Your task to perform on an android device: Open Wikipedia Image 0: 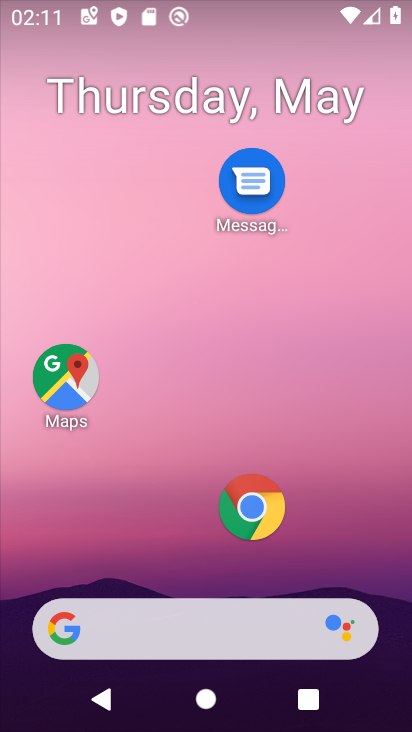
Step 0: drag from (300, 651) to (324, 13)
Your task to perform on an android device: Open Wikipedia Image 1: 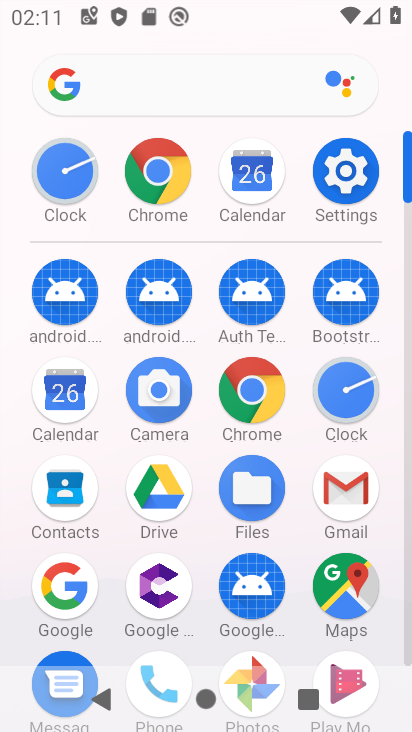
Step 1: click (259, 409)
Your task to perform on an android device: Open Wikipedia Image 2: 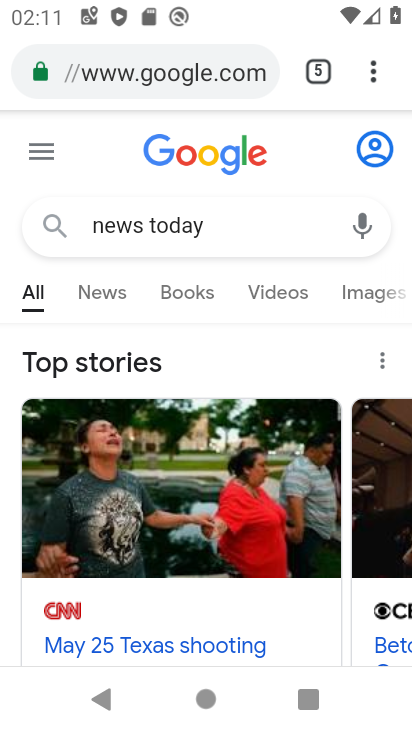
Step 2: drag from (375, 67) to (203, 134)
Your task to perform on an android device: Open Wikipedia Image 3: 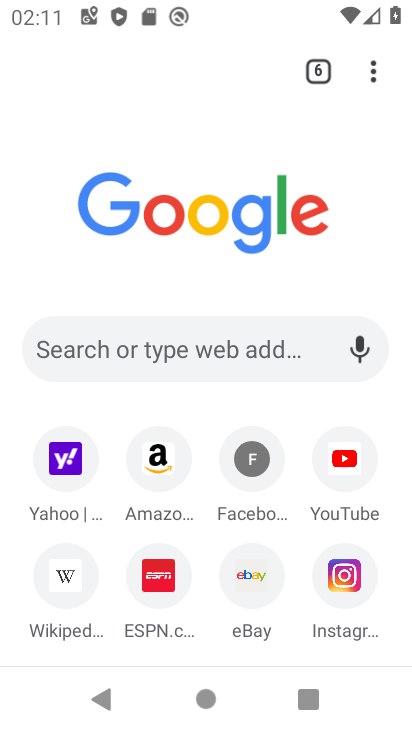
Step 3: click (64, 592)
Your task to perform on an android device: Open Wikipedia Image 4: 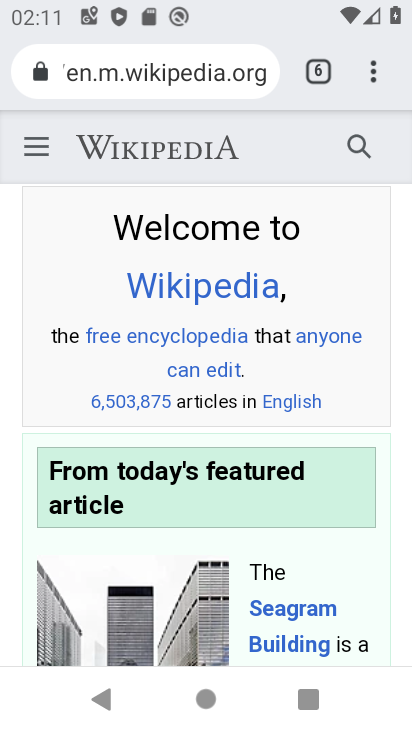
Step 4: task complete